Your task to perform on an android device: open app "PUBG MOBILE" (install if not already installed) and enter user name: "phenomenologically@gmail.com" and password: "artillery" Image 0: 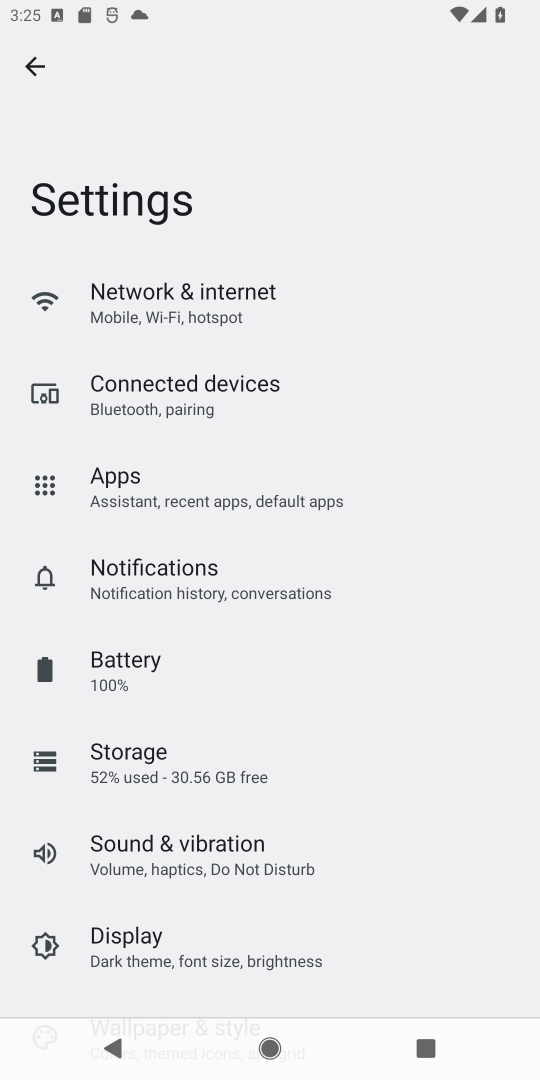
Step 0: press home button
Your task to perform on an android device: open app "PUBG MOBILE" (install if not already installed) and enter user name: "phenomenologically@gmail.com" and password: "artillery" Image 1: 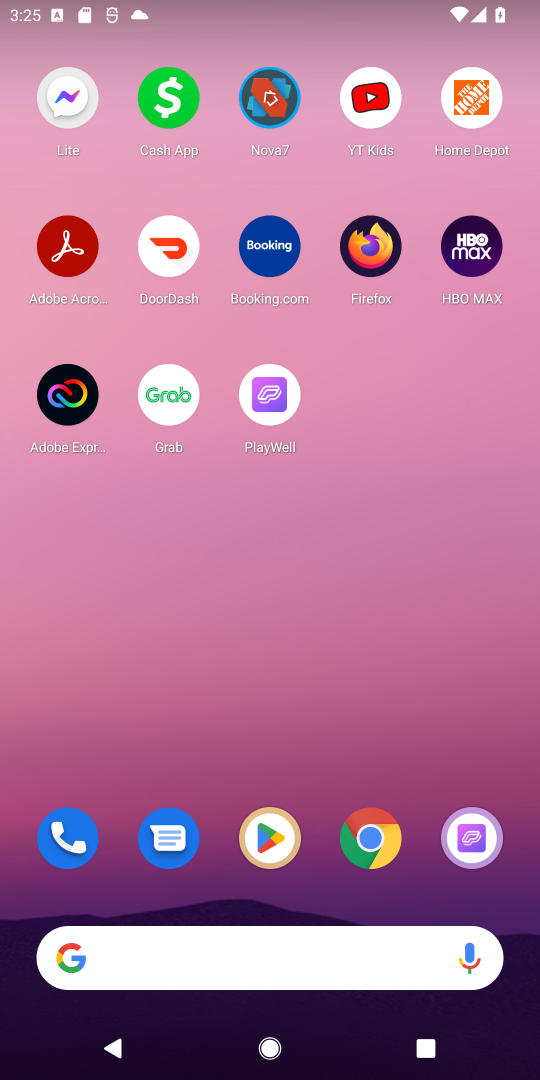
Step 1: click (290, 840)
Your task to perform on an android device: open app "PUBG MOBILE" (install if not already installed) and enter user name: "phenomenologically@gmail.com" and password: "artillery" Image 2: 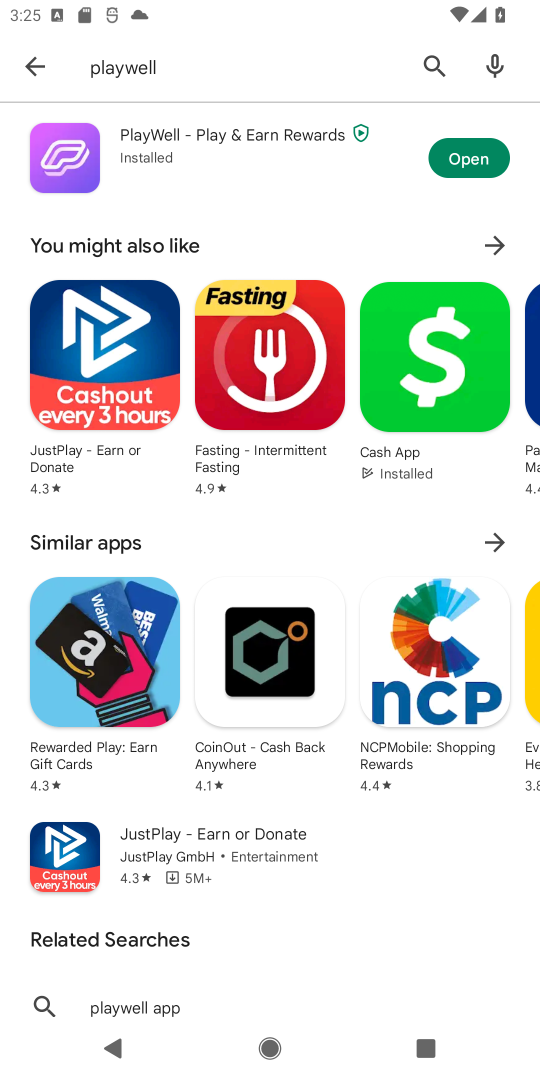
Step 2: click (67, 70)
Your task to perform on an android device: open app "PUBG MOBILE" (install if not already installed) and enter user name: "phenomenologically@gmail.com" and password: "artillery" Image 3: 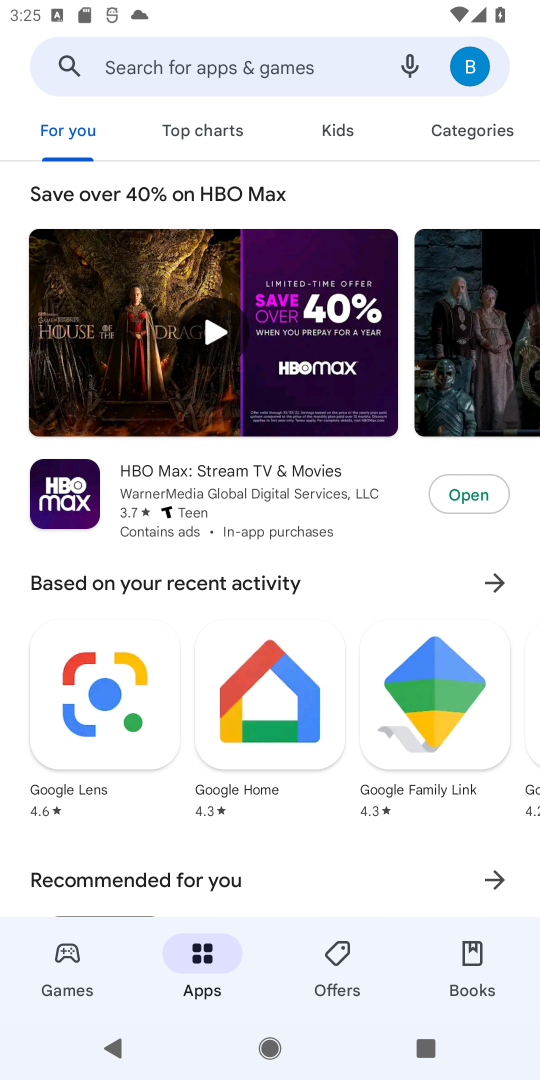
Step 3: click (112, 66)
Your task to perform on an android device: open app "PUBG MOBILE" (install if not already installed) and enter user name: "phenomenologically@gmail.com" and password: "artillery" Image 4: 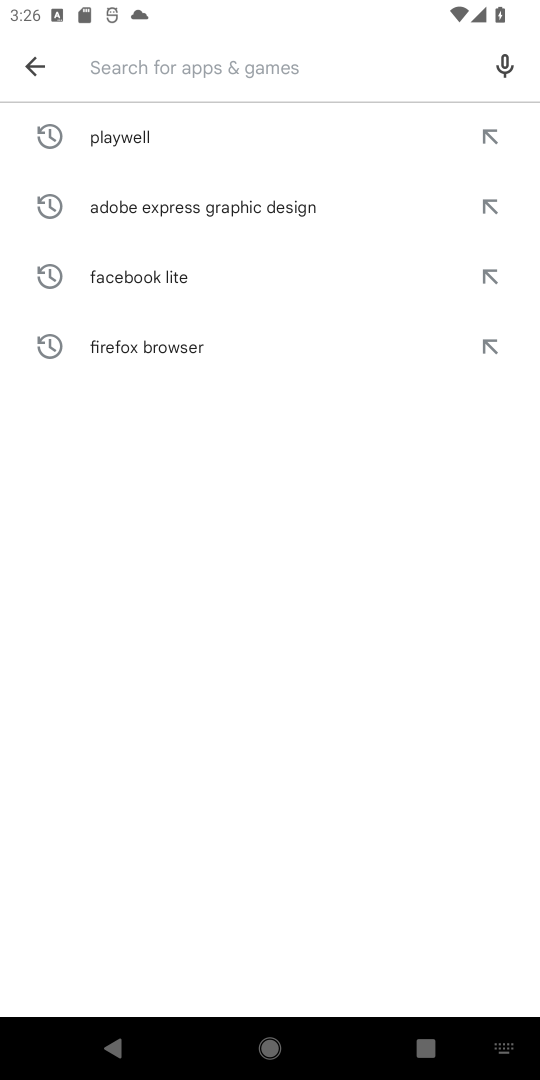
Step 4: type "PUBG MOBILE"
Your task to perform on an android device: open app "PUBG MOBILE" (install if not already installed) and enter user name: "phenomenologically@gmail.com" and password: "artillery" Image 5: 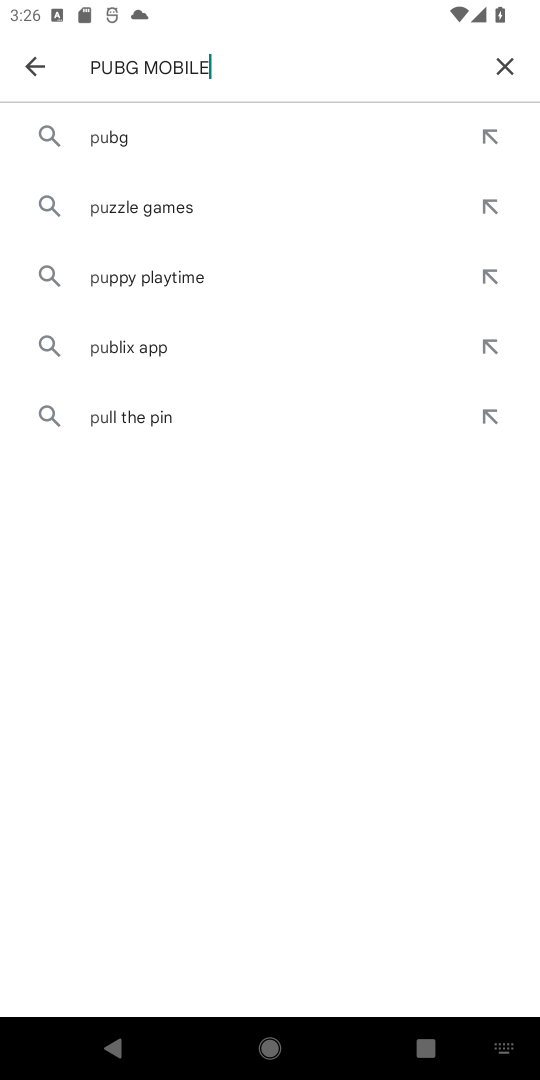
Step 5: type ""
Your task to perform on an android device: open app "PUBG MOBILE" (install if not already installed) and enter user name: "phenomenologically@gmail.com" and password: "artillery" Image 6: 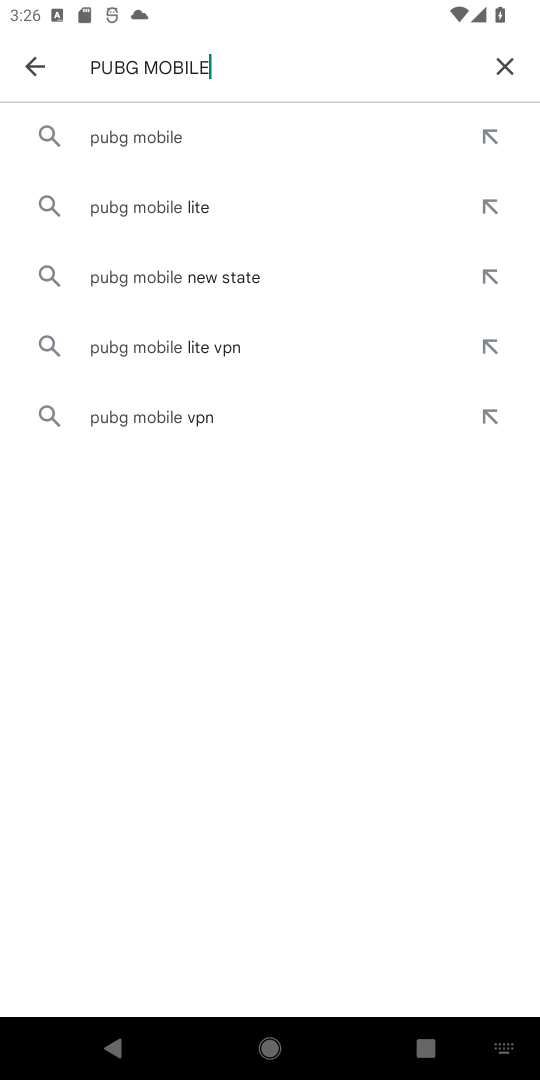
Step 6: click (154, 128)
Your task to perform on an android device: open app "PUBG MOBILE" (install if not already installed) and enter user name: "phenomenologically@gmail.com" and password: "artillery" Image 7: 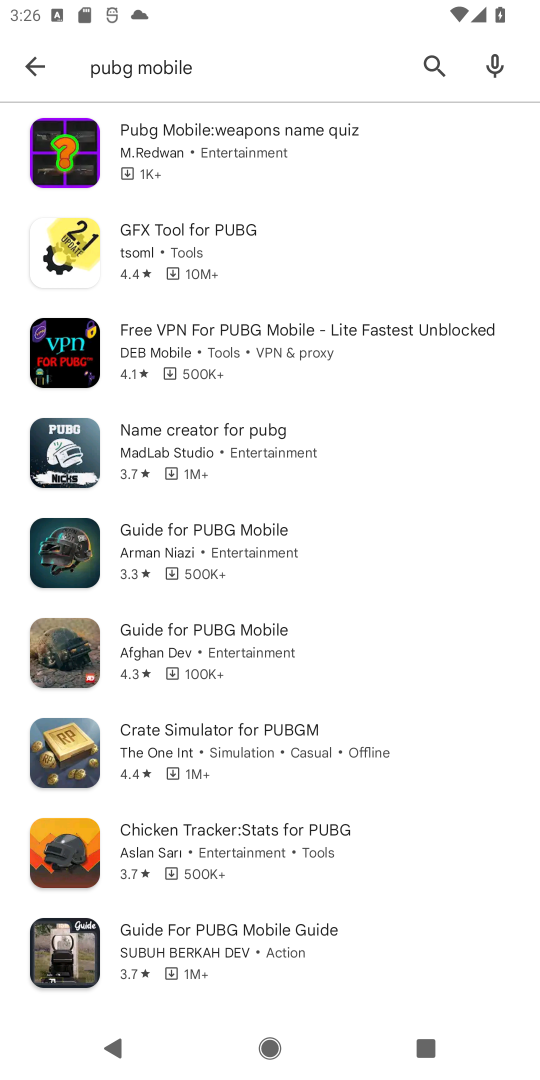
Step 7: task complete